Your task to perform on an android device: Show me the alarms in the clock app Image 0: 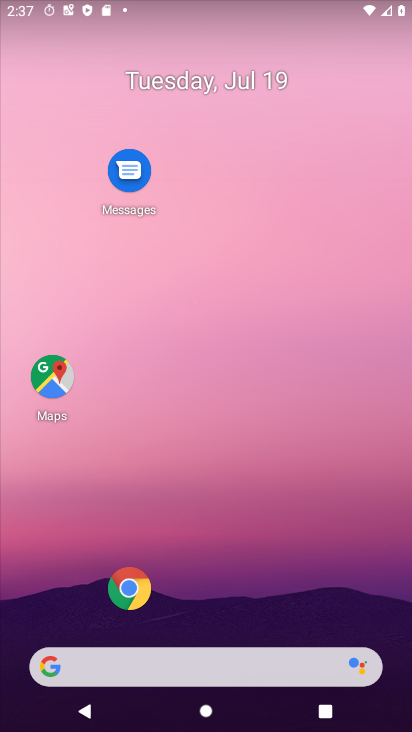
Step 0: drag from (27, 682) to (187, 143)
Your task to perform on an android device: Show me the alarms in the clock app Image 1: 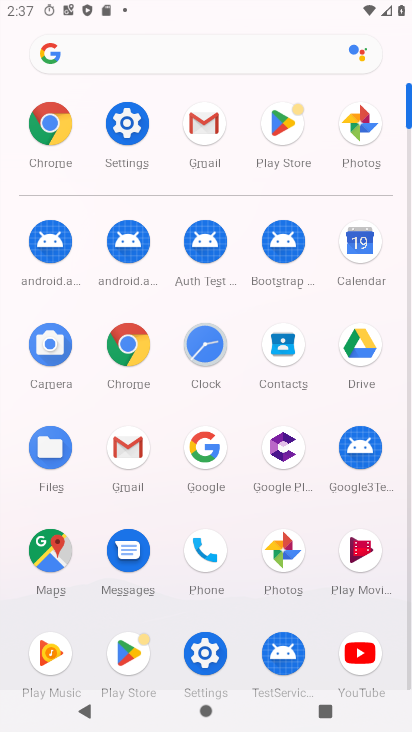
Step 1: click (205, 352)
Your task to perform on an android device: Show me the alarms in the clock app Image 2: 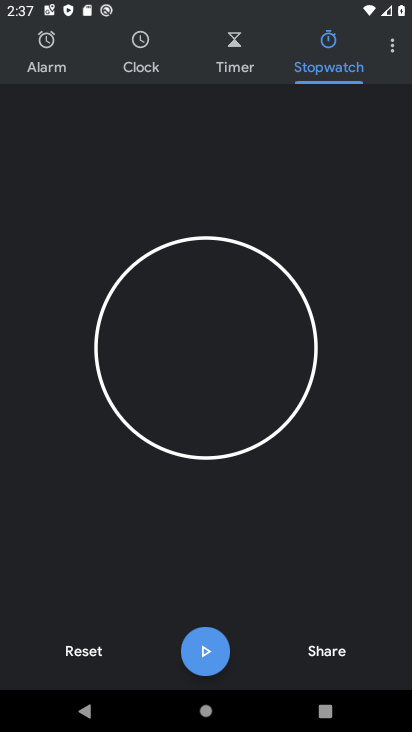
Step 2: click (45, 61)
Your task to perform on an android device: Show me the alarms in the clock app Image 3: 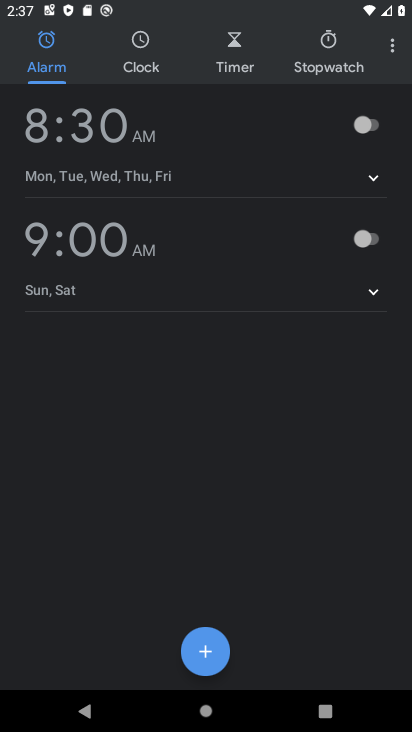
Step 3: task complete